Your task to perform on an android device: Clear all items from cart on ebay. Image 0: 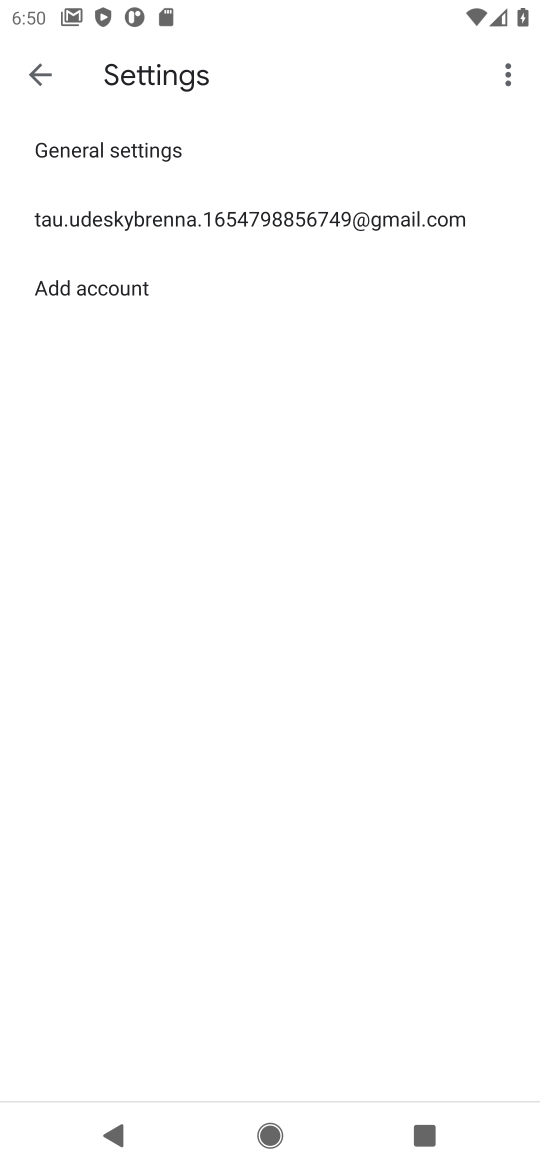
Step 0: press home button
Your task to perform on an android device: Clear all items from cart on ebay. Image 1: 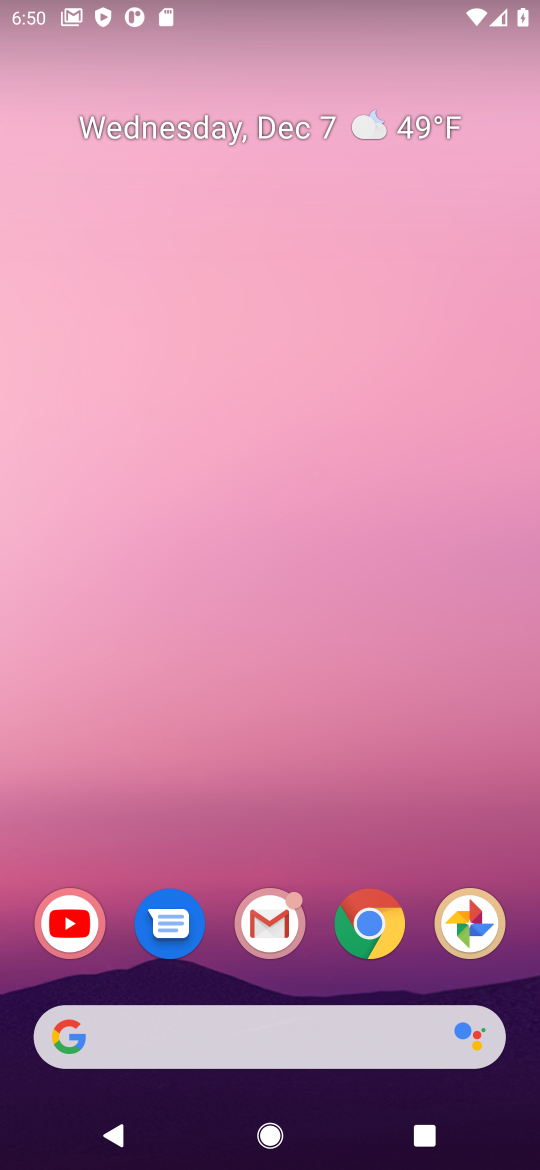
Step 1: drag from (232, 888) to (232, 483)
Your task to perform on an android device: Clear all items from cart on ebay. Image 2: 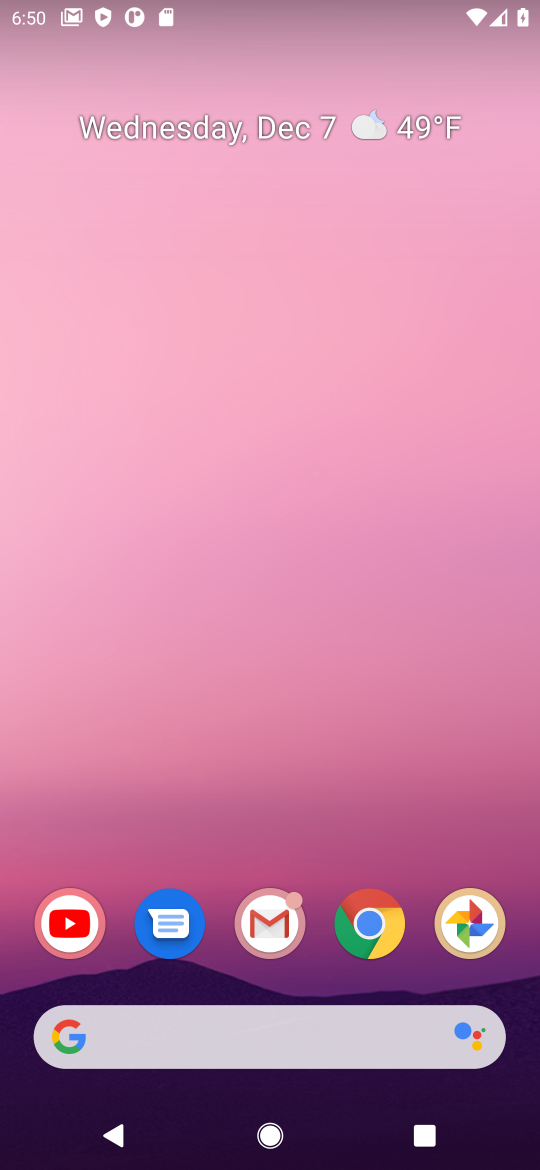
Step 2: drag from (260, 991) to (260, 488)
Your task to perform on an android device: Clear all items from cart on ebay. Image 3: 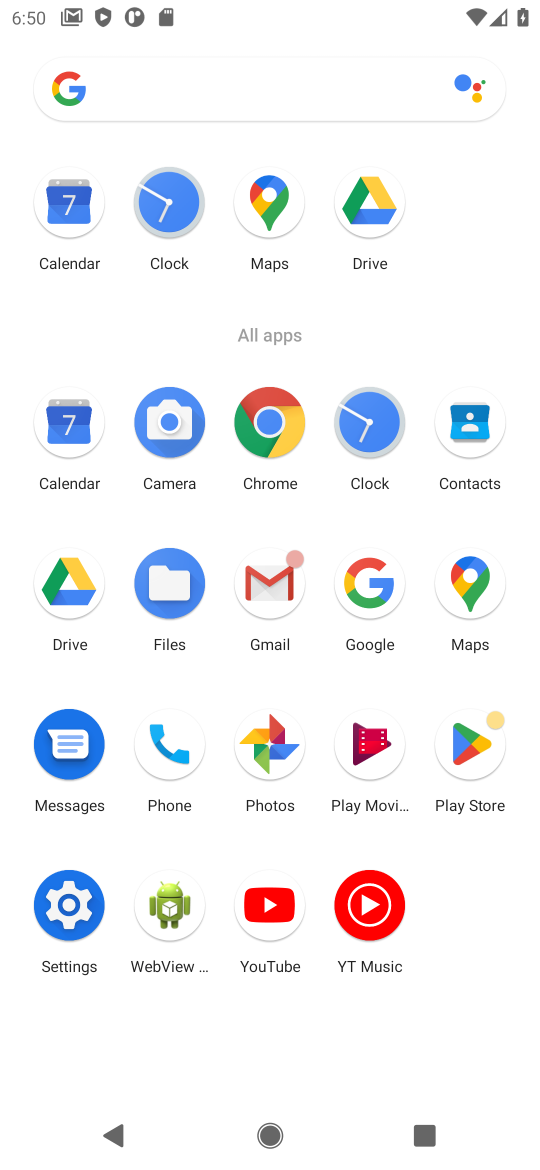
Step 3: click (358, 580)
Your task to perform on an android device: Clear all items from cart on ebay. Image 4: 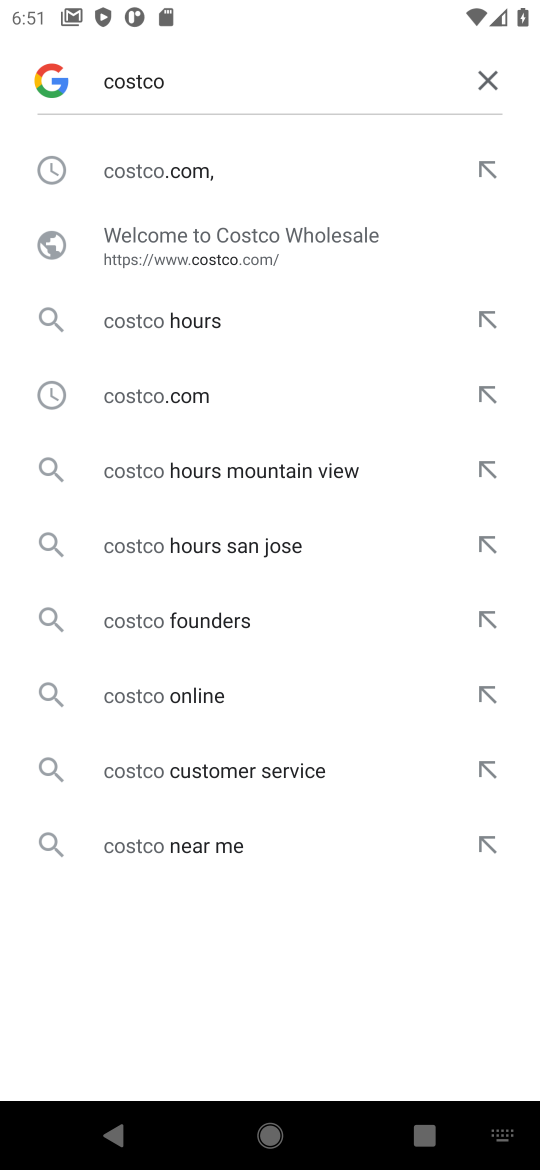
Step 4: click (489, 76)
Your task to perform on an android device: Clear all items from cart on ebay. Image 5: 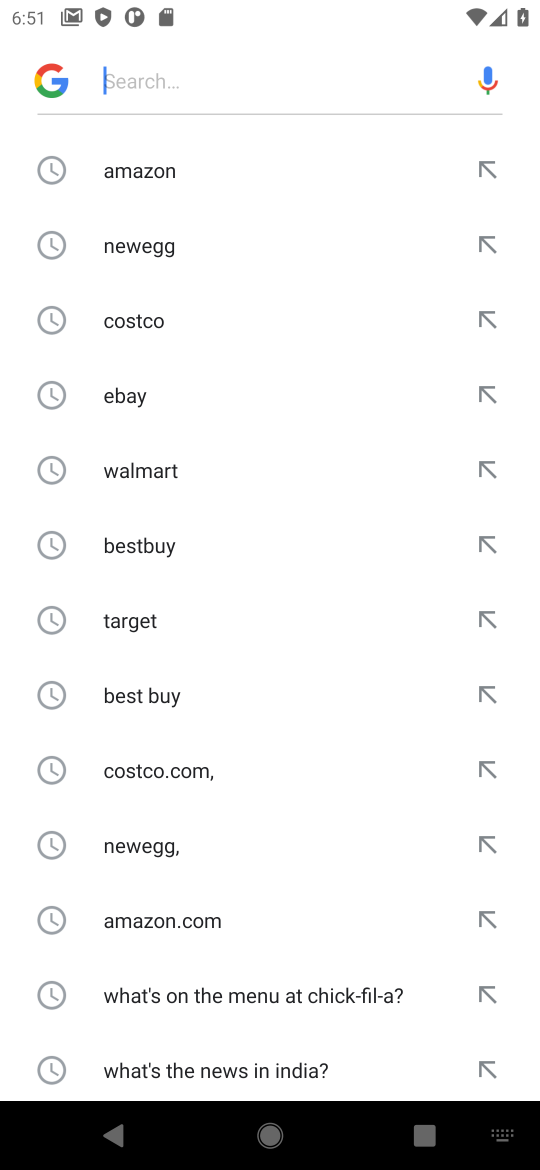
Step 5: click (124, 83)
Your task to perform on an android device: Clear all items from cart on ebay. Image 6: 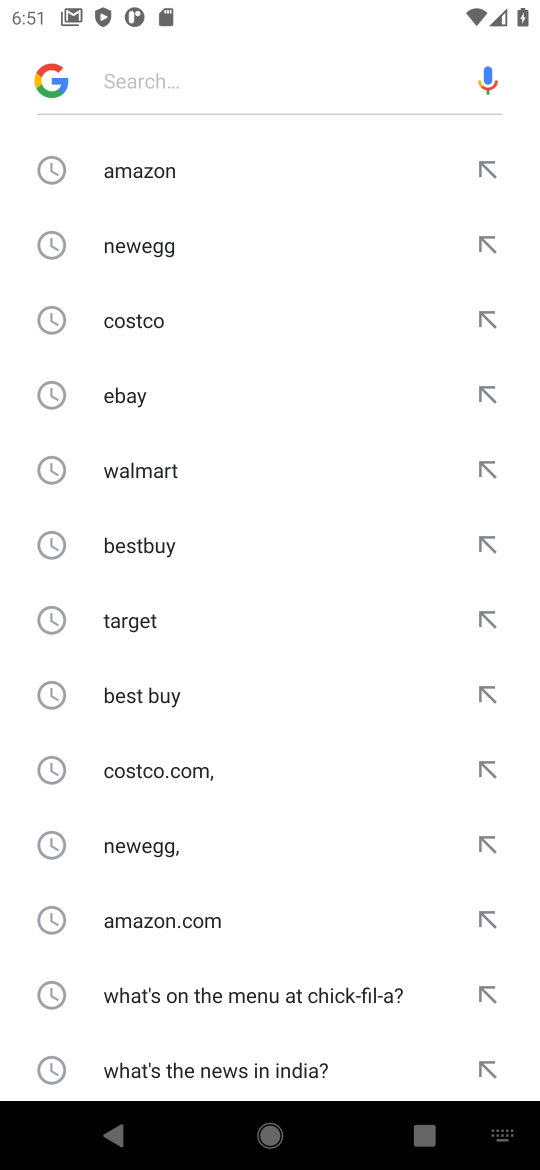
Step 6: click (479, 394)
Your task to perform on an android device: Clear all items from cart on ebay. Image 7: 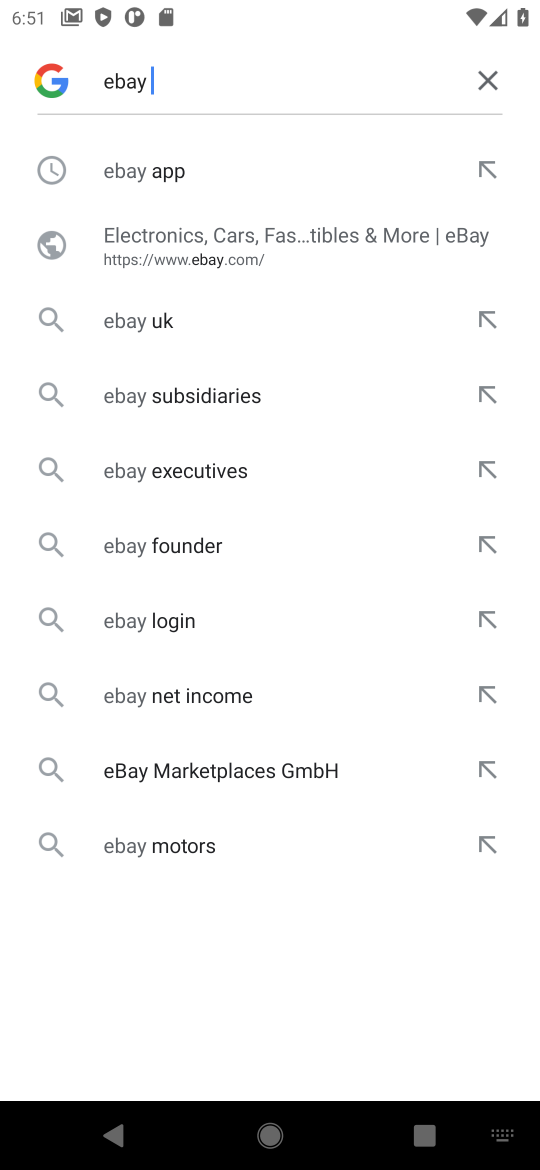
Step 7: click (174, 246)
Your task to perform on an android device: Clear all items from cart on ebay. Image 8: 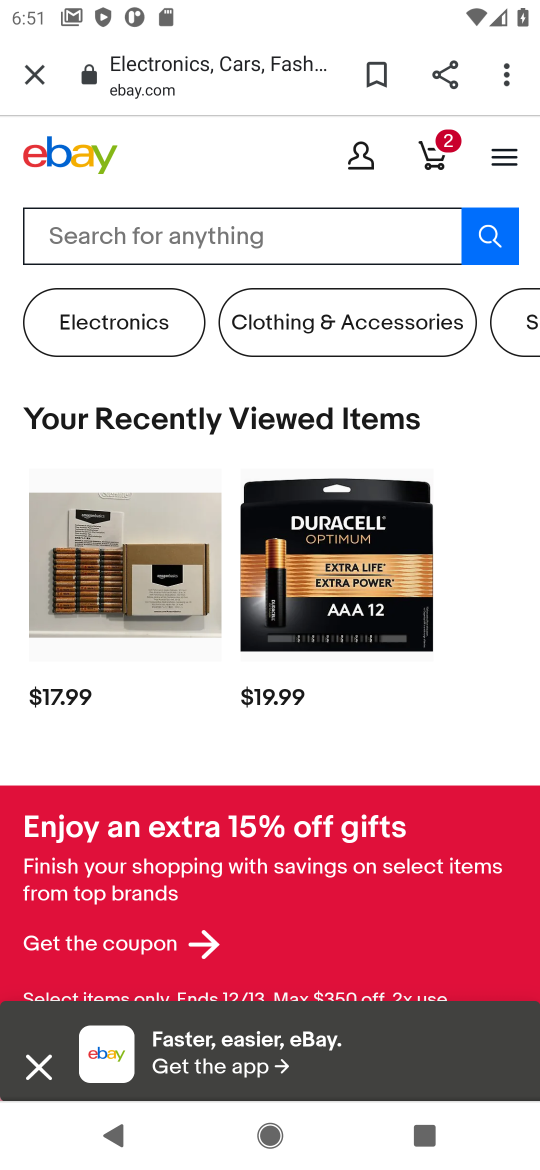
Step 8: click (440, 144)
Your task to perform on an android device: Clear all items from cart on ebay. Image 9: 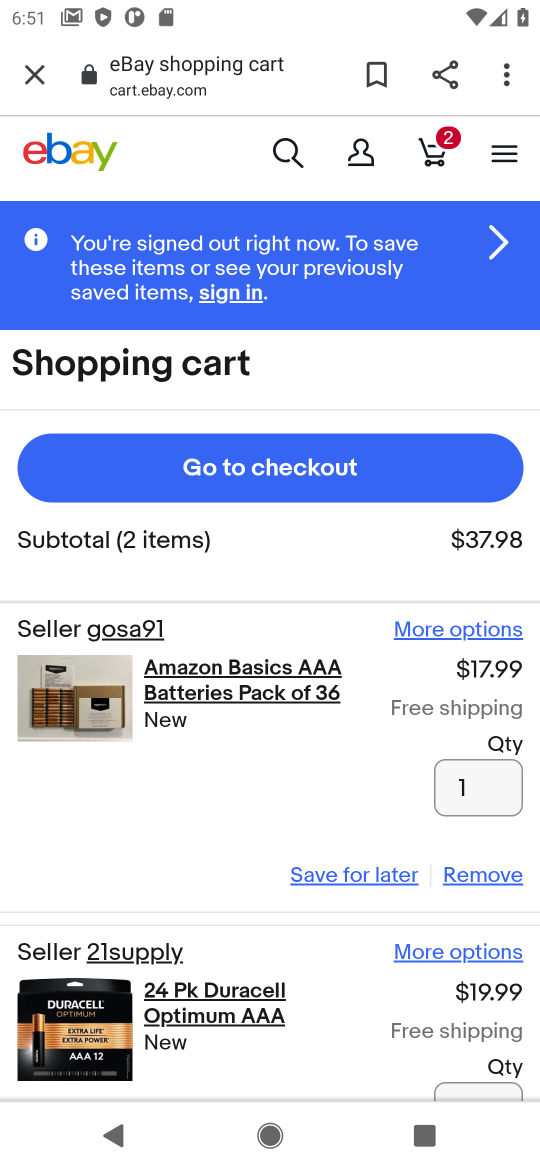
Step 9: click (470, 872)
Your task to perform on an android device: Clear all items from cart on ebay. Image 10: 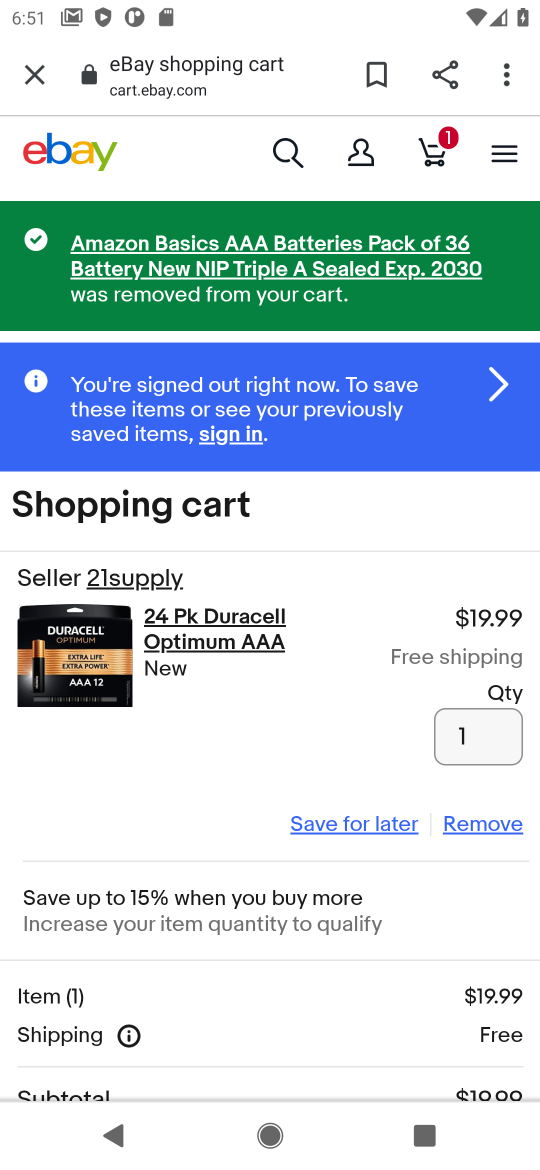
Step 10: click (502, 817)
Your task to perform on an android device: Clear all items from cart on ebay. Image 11: 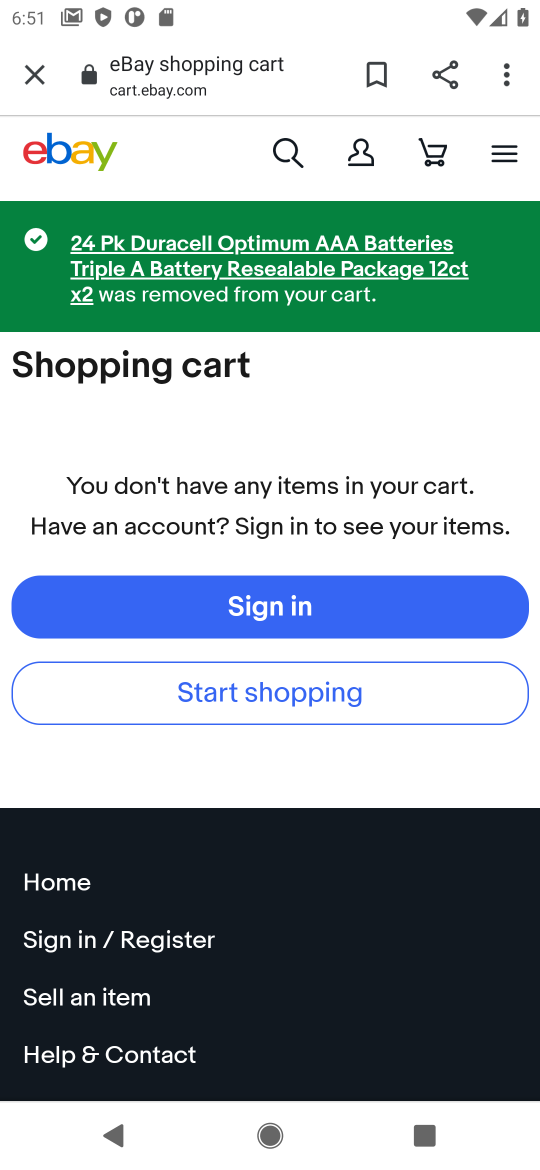
Step 11: task complete